Your task to perform on an android device: delete the emails in spam in the gmail app Image 0: 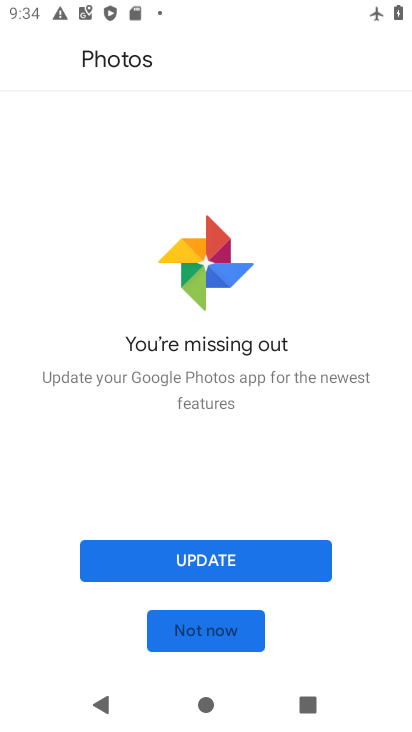
Step 0: press home button
Your task to perform on an android device: delete the emails in spam in the gmail app Image 1: 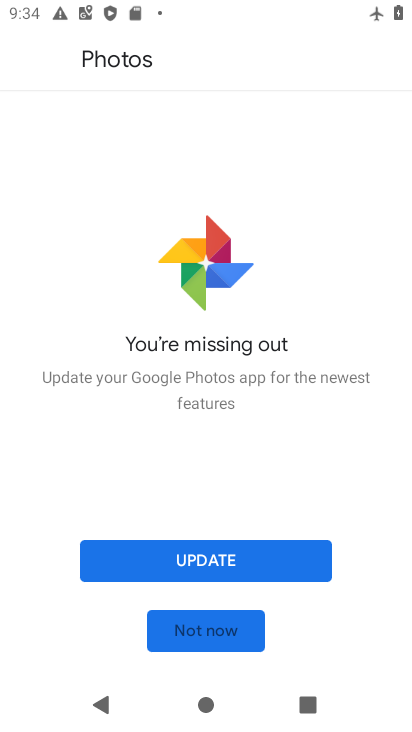
Step 1: press home button
Your task to perform on an android device: delete the emails in spam in the gmail app Image 2: 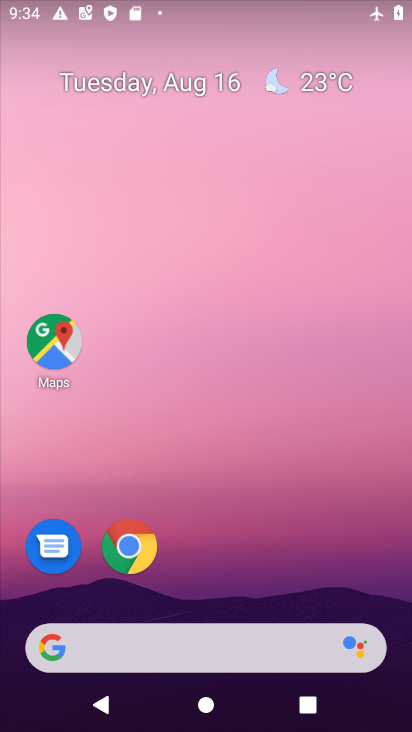
Step 2: drag from (252, 575) to (307, 0)
Your task to perform on an android device: delete the emails in spam in the gmail app Image 3: 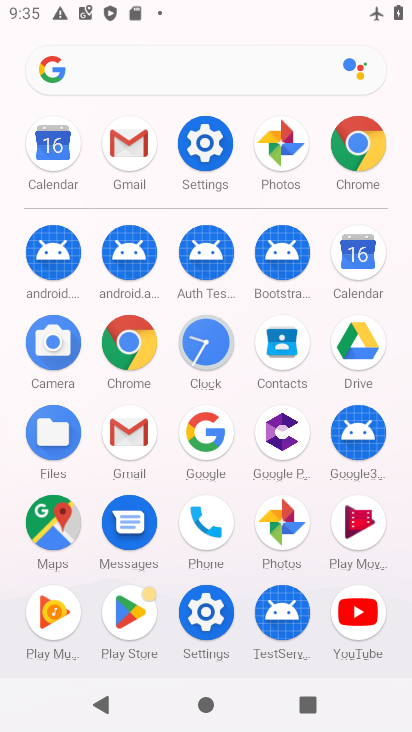
Step 3: click (133, 145)
Your task to perform on an android device: delete the emails in spam in the gmail app Image 4: 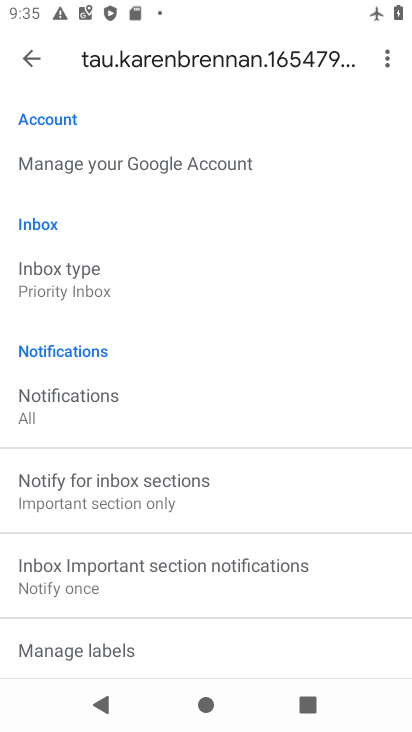
Step 4: click (30, 53)
Your task to perform on an android device: delete the emails in spam in the gmail app Image 5: 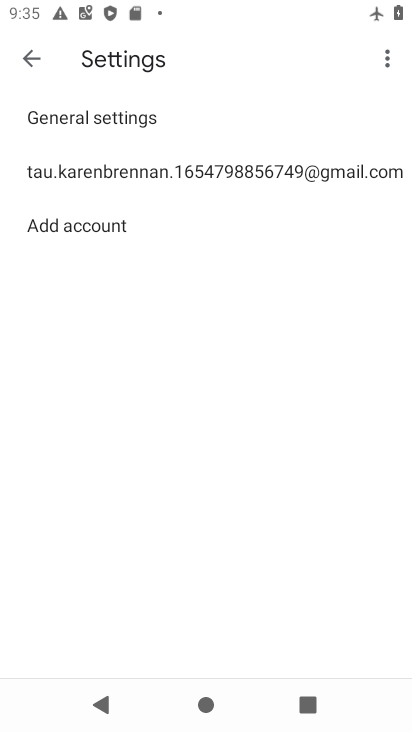
Step 5: click (30, 53)
Your task to perform on an android device: delete the emails in spam in the gmail app Image 6: 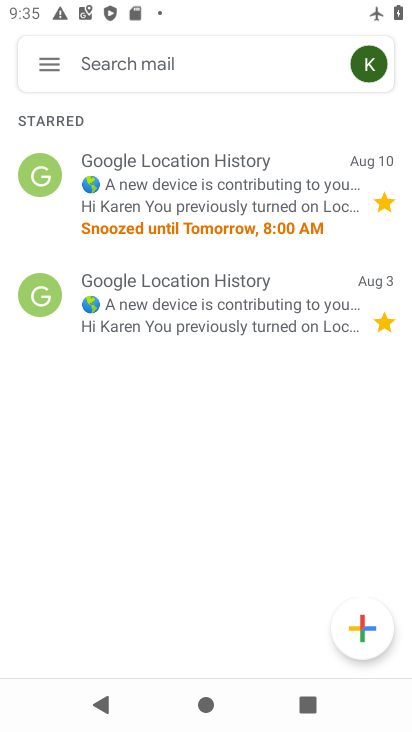
Step 6: click (48, 65)
Your task to perform on an android device: delete the emails in spam in the gmail app Image 7: 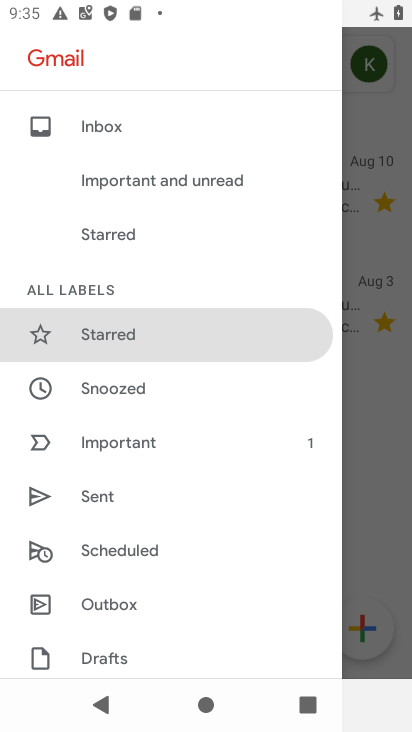
Step 7: drag from (149, 544) to (258, 29)
Your task to perform on an android device: delete the emails in spam in the gmail app Image 8: 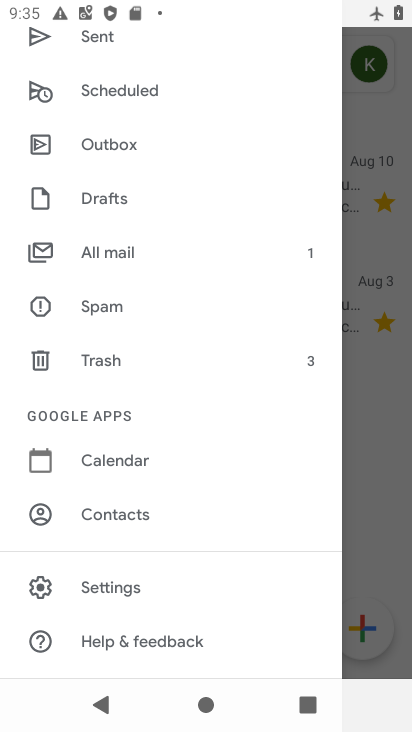
Step 8: click (115, 298)
Your task to perform on an android device: delete the emails in spam in the gmail app Image 9: 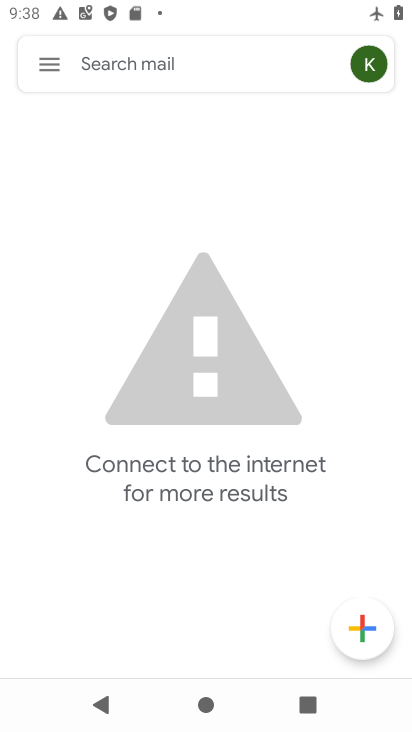
Step 9: task complete